Your task to perform on an android device: turn off picture-in-picture Image 0: 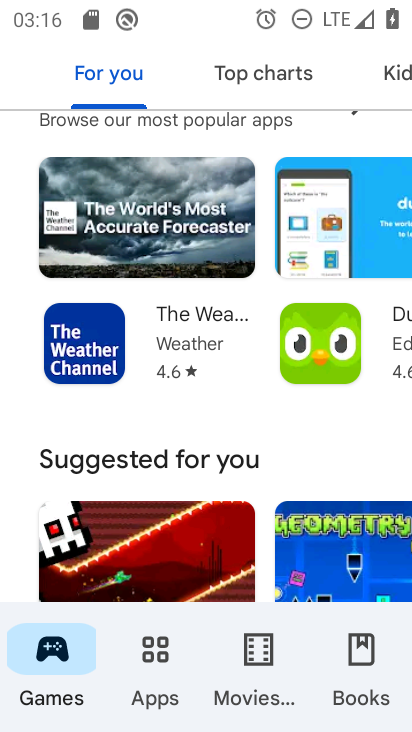
Step 0: press home button
Your task to perform on an android device: turn off picture-in-picture Image 1: 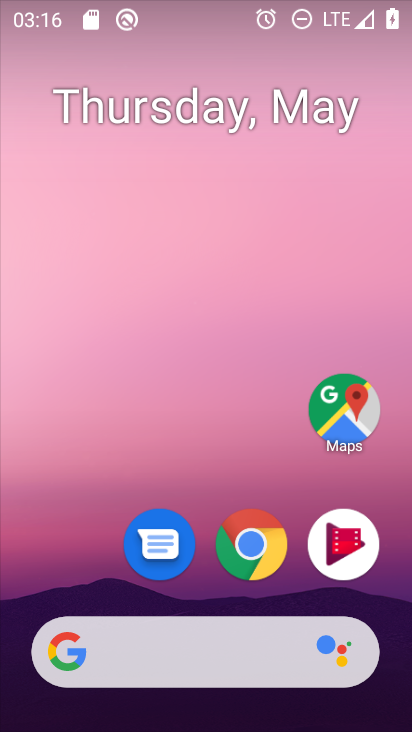
Step 1: drag from (66, 585) to (79, 179)
Your task to perform on an android device: turn off picture-in-picture Image 2: 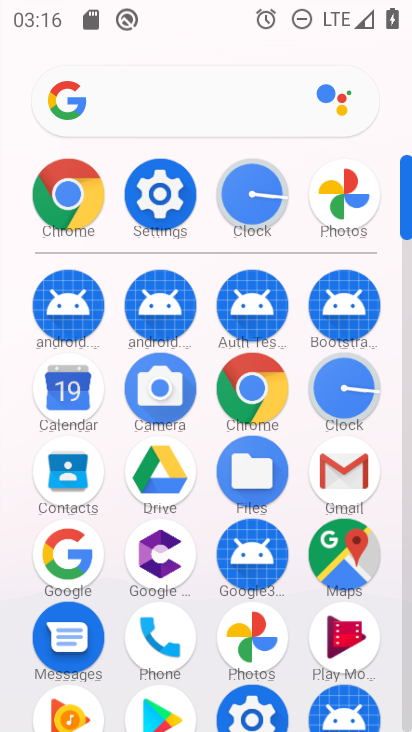
Step 2: drag from (111, 584) to (116, 371)
Your task to perform on an android device: turn off picture-in-picture Image 3: 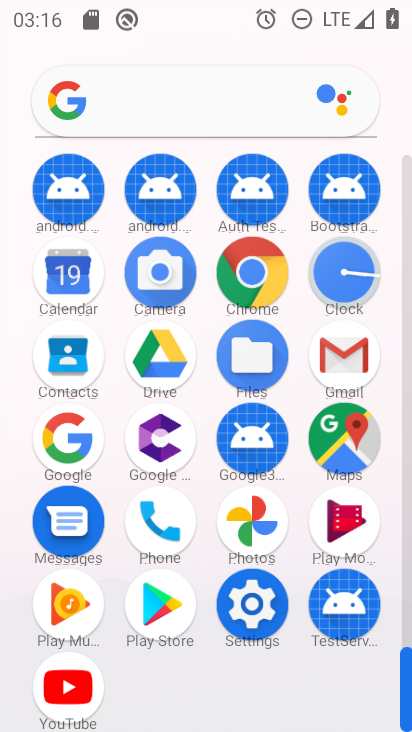
Step 3: click (255, 624)
Your task to perform on an android device: turn off picture-in-picture Image 4: 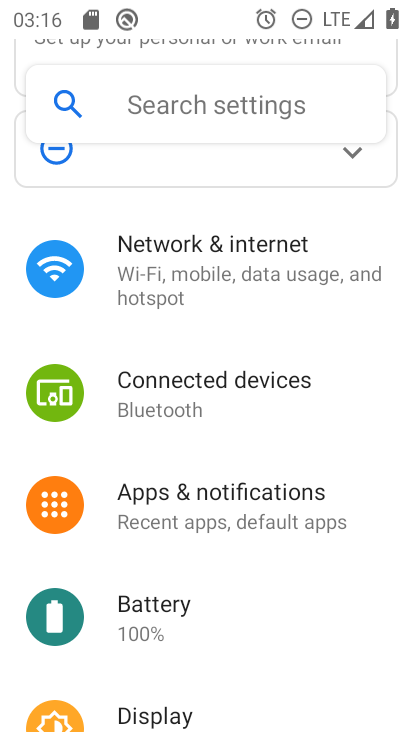
Step 4: drag from (258, 634) to (291, 510)
Your task to perform on an android device: turn off picture-in-picture Image 5: 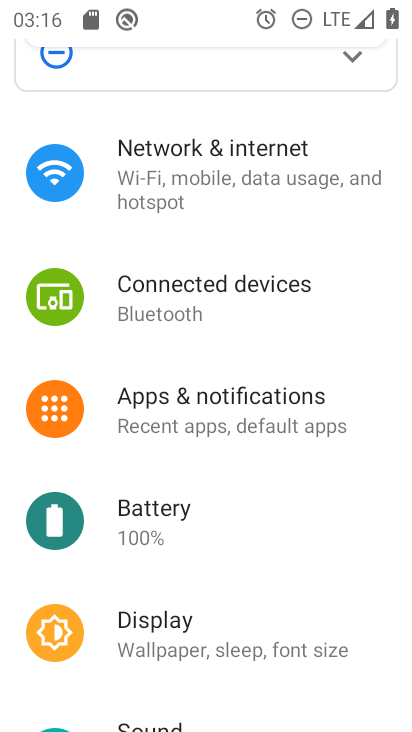
Step 5: drag from (298, 687) to (318, 552)
Your task to perform on an android device: turn off picture-in-picture Image 6: 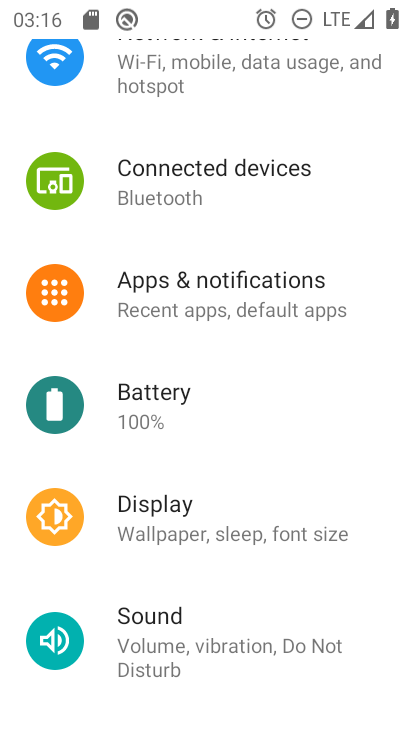
Step 6: drag from (367, 672) to (383, 541)
Your task to perform on an android device: turn off picture-in-picture Image 7: 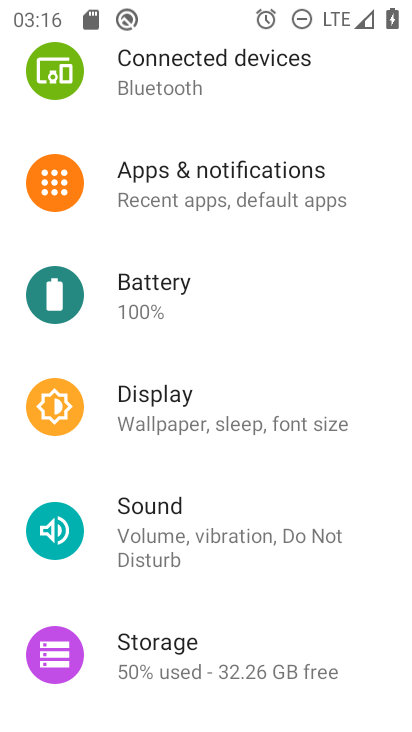
Step 7: drag from (358, 691) to (380, 545)
Your task to perform on an android device: turn off picture-in-picture Image 8: 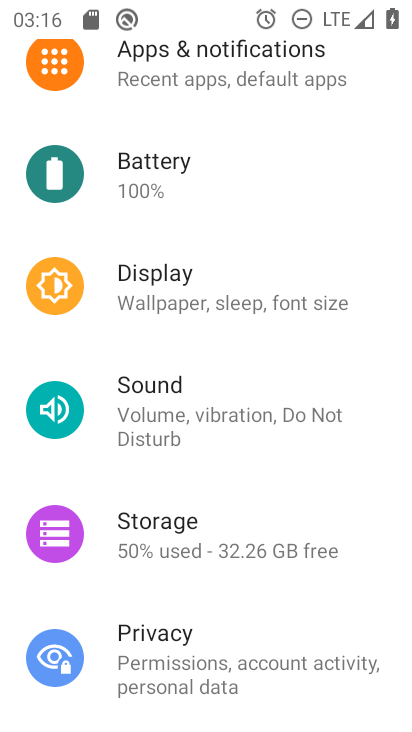
Step 8: drag from (367, 678) to (372, 519)
Your task to perform on an android device: turn off picture-in-picture Image 9: 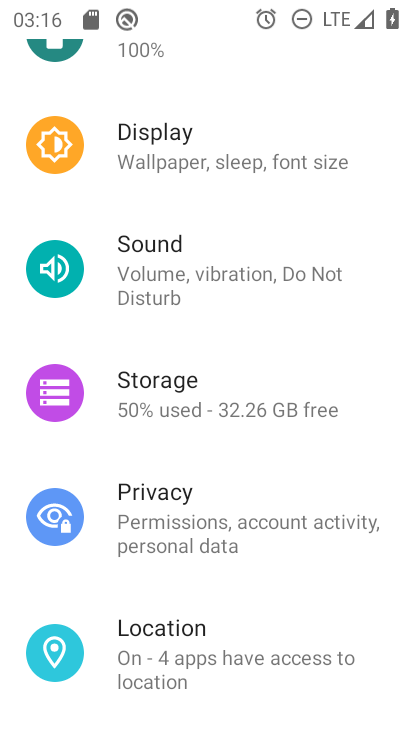
Step 9: drag from (360, 674) to (370, 538)
Your task to perform on an android device: turn off picture-in-picture Image 10: 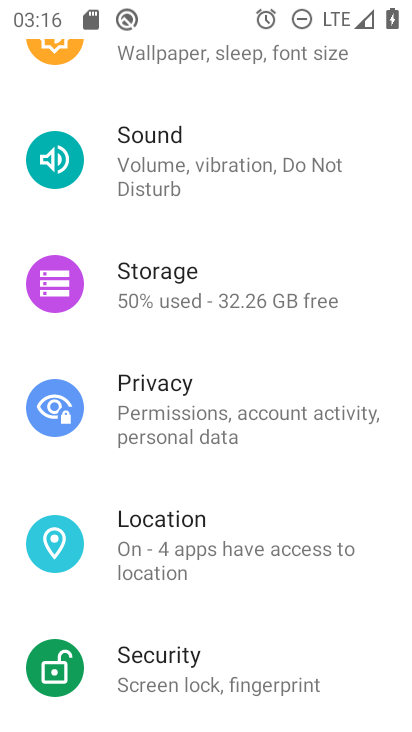
Step 10: drag from (341, 670) to (353, 533)
Your task to perform on an android device: turn off picture-in-picture Image 11: 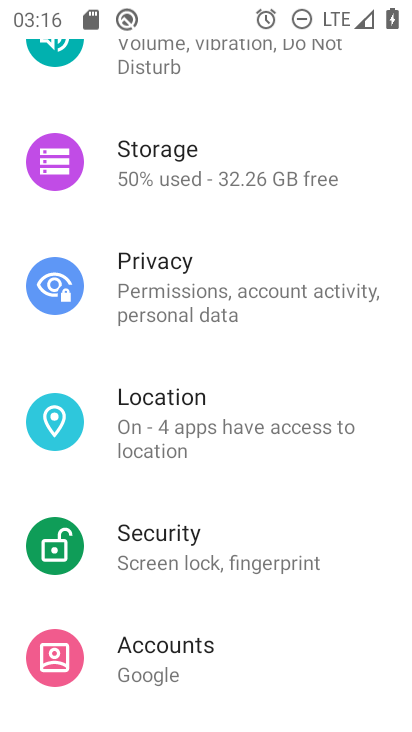
Step 11: drag from (361, 672) to (367, 545)
Your task to perform on an android device: turn off picture-in-picture Image 12: 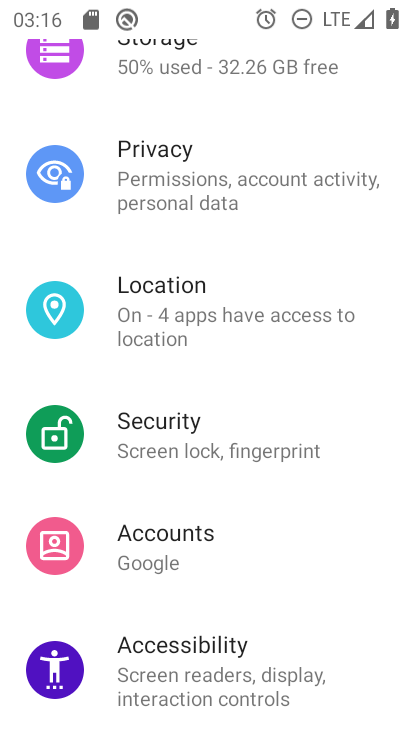
Step 12: drag from (349, 693) to (354, 527)
Your task to perform on an android device: turn off picture-in-picture Image 13: 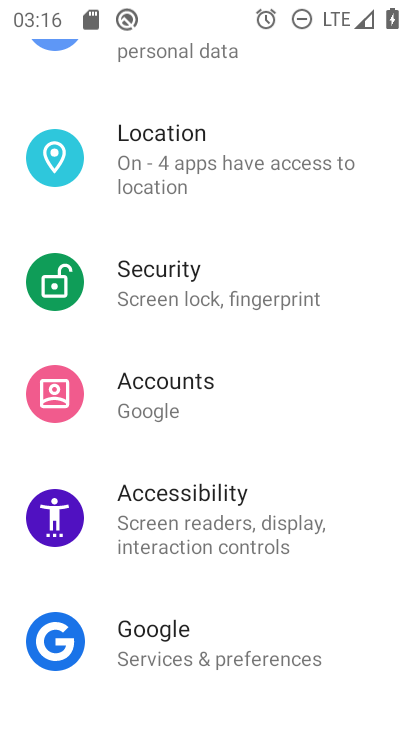
Step 13: drag from (360, 668) to (352, 527)
Your task to perform on an android device: turn off picture-in-picture Image 14: 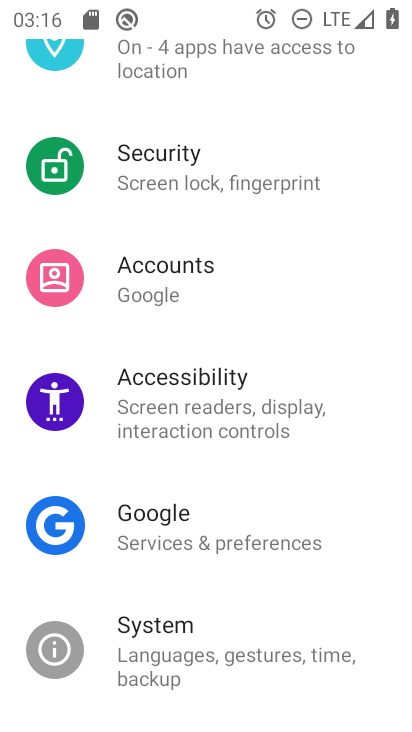
Step 14: drag from (352, 676) to (351, 529)
Your task to perform on an android device: turn off picture-in-picture Image 15: 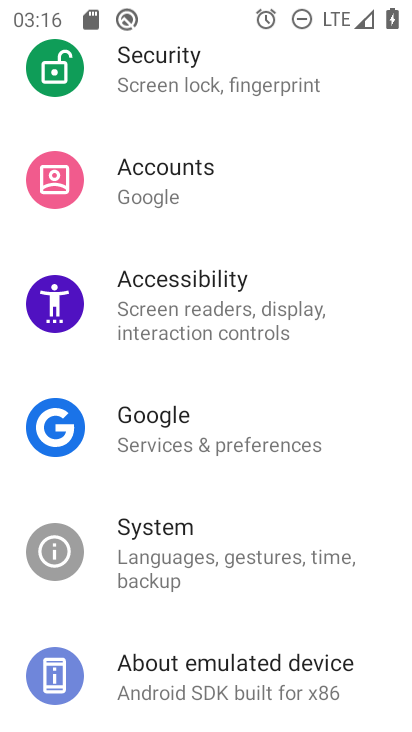
Step 15: drag from (359, 688) to (366, 500)
Your task to perform on an android device: turn off picture-in-picture Image 16: 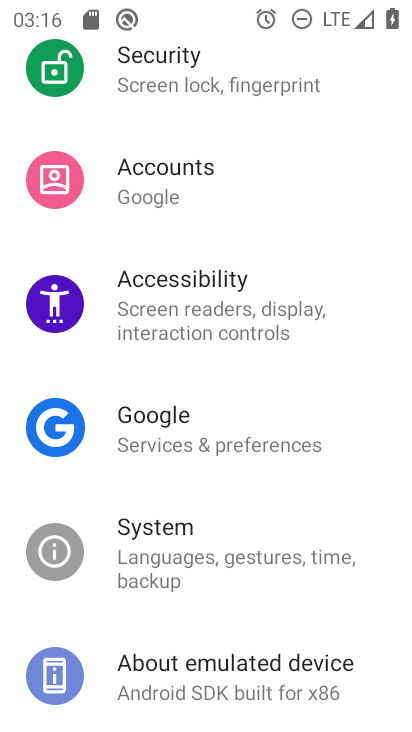
Step 16: drag from (370, 233) to (367, 371)
Your task to perform on an android device: turn off picture-in-picture Image 17: 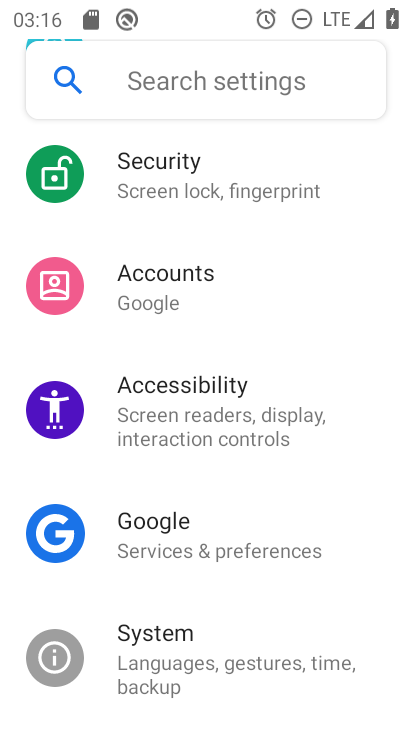
Step 17: drag from (370, 181) to (369, 326)
Your task to perform on an android device: turn off picture-in-picture Image 18: 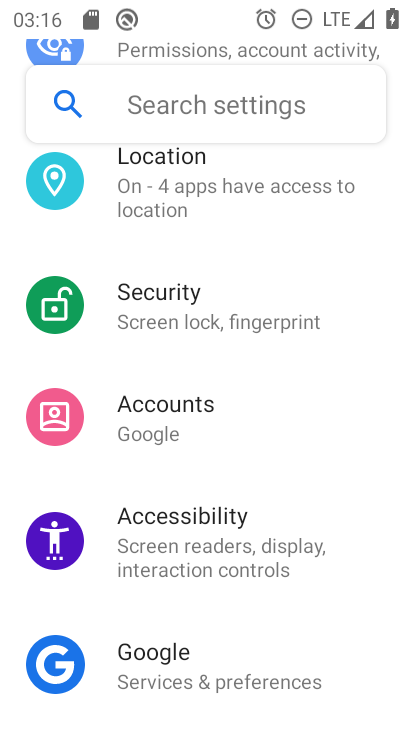
Step 18: drag from (379, 165) to (356, 328)
Your task to perform on an android device: turn off picture-in-picture Image 19: 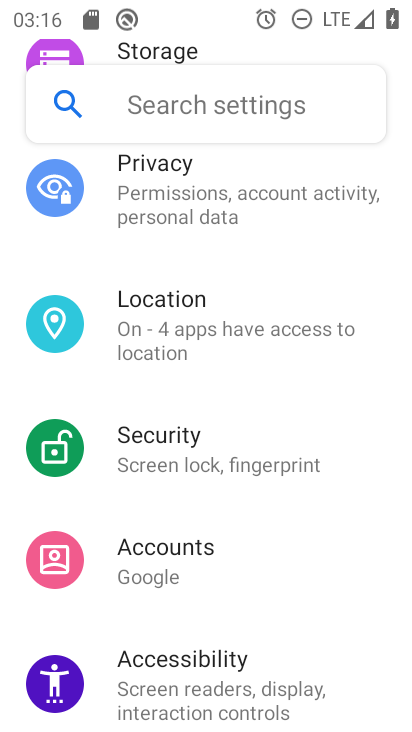
Step 19: drag from (355, 243) to (351, 385)
Your task to perform on an android device: turn off picture-in-picture Image 20: 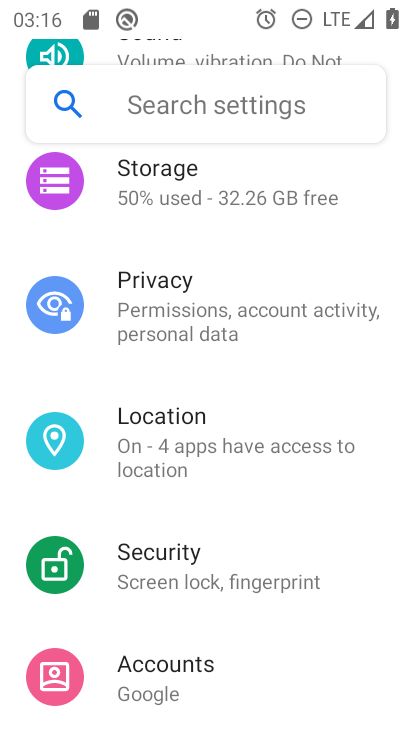
Step 20: drag from (343, 257) to (338, 396)
Your task to perform on an android device: turn off picture-in-picture Image 21: 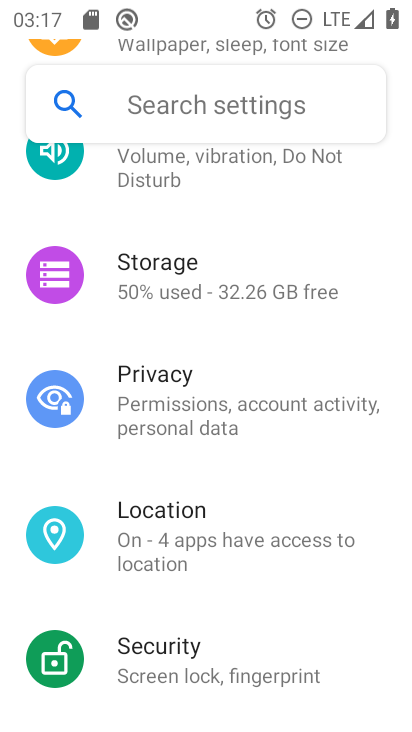
Step 21: drag from (353, 256) to (346, 420)
Your task to perform on an android device: turn off picture-in-picture Image 22: 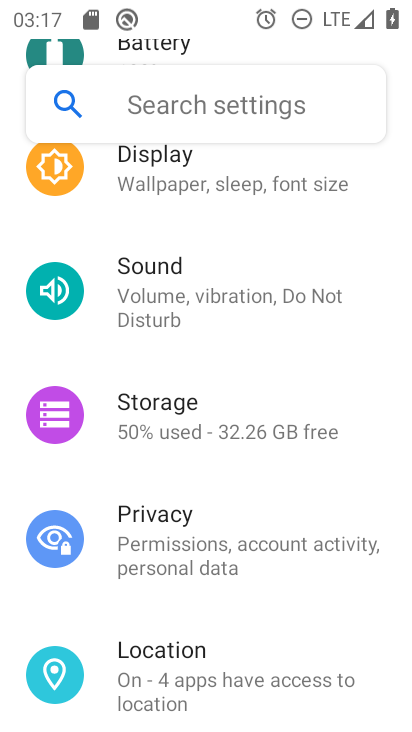
Step 22: drag from (359, 263) to (350, 421)
Your task to perform on an android device: turn off picture-in-picture Image 23: 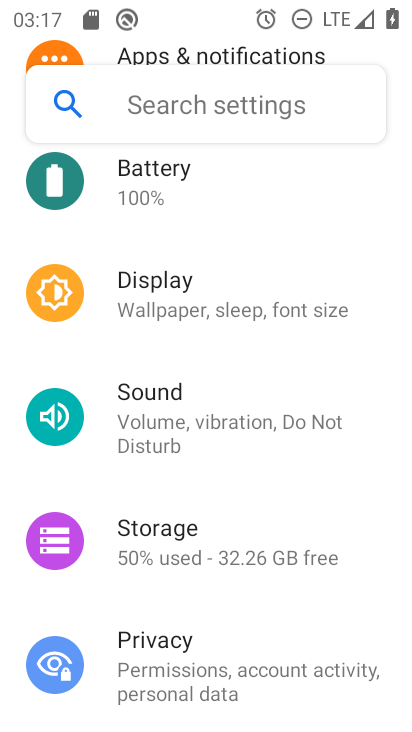
Step 23: drag from (355, 236) to (357, 404)
Your task to perform on an android device: turn off picture-in-picture Image 24: 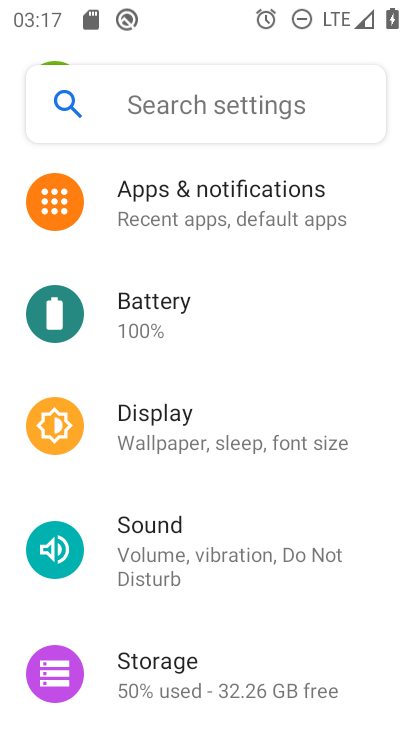
Step 24: click (279, 213)
Your task to perform on an android device: turn off picture-in-picture Image 25: 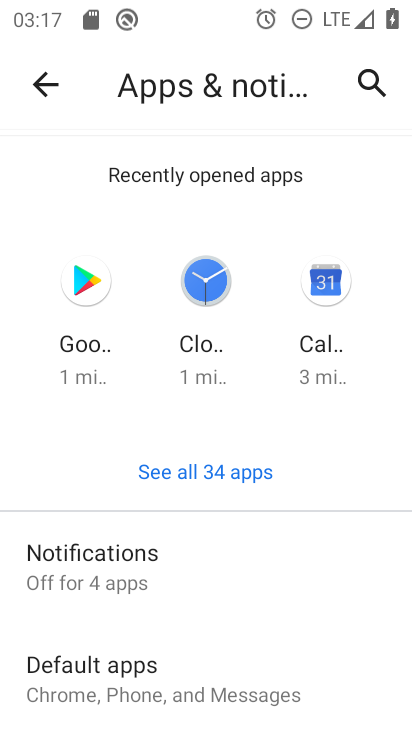
Step 25: drag from (299, 578) to (294, 457)
Your task to perform on an android device: turn off picture-in-picture Image 26: 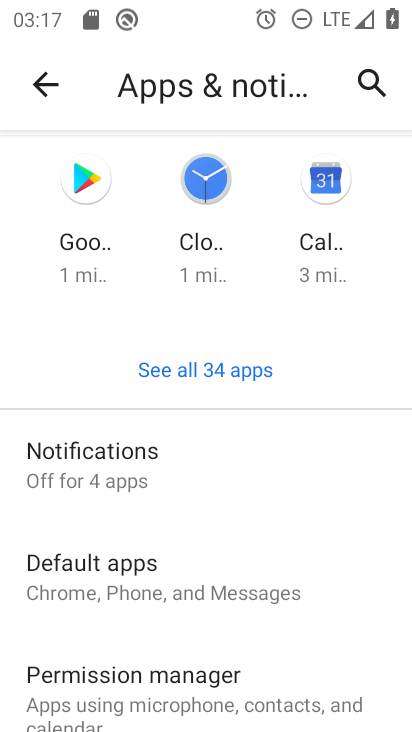
Step 26: drag from (312, 615) to (334, 504)
Your task to perform on an android device: turn off picture-in-picture Image 27: 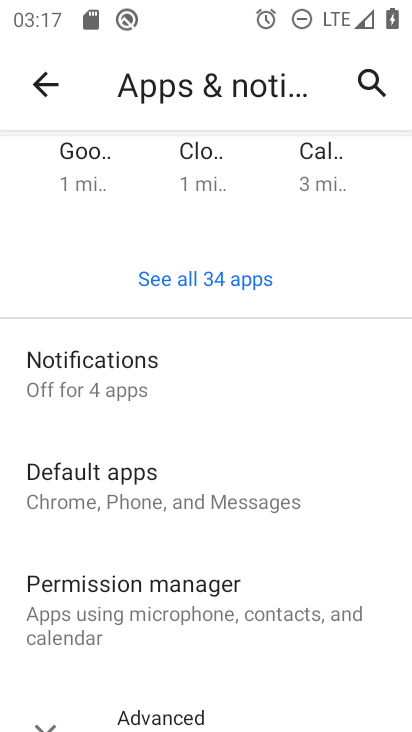
Step 27: drag from (253, 589) to (262, 368)
Your task to perform on an android device: turn off picture-in-picture Image 28: 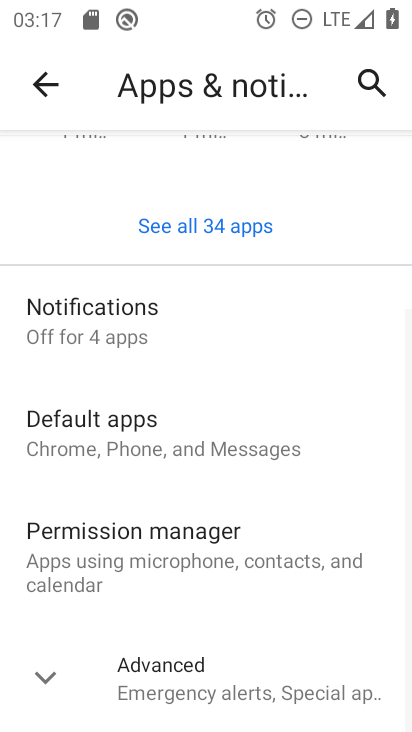
Step 28: click (204, 669)
Your task to perform on an android device: turn off picture-in-picture Image 29: 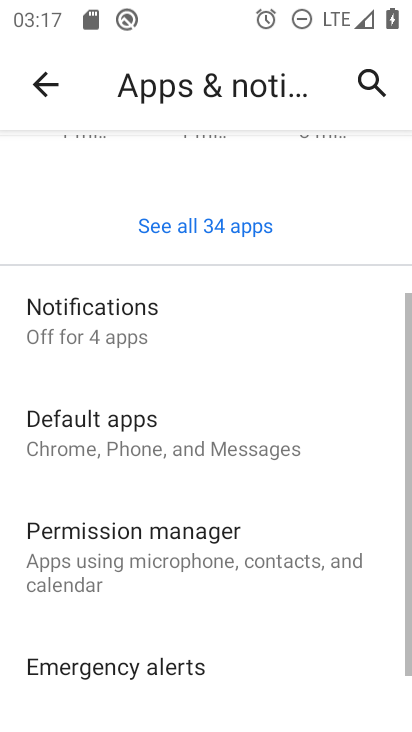
Step 29: drag from (291, 676) to (319, 478)
Your task to perform on an android device: turn off picture-in-picture Image 30: 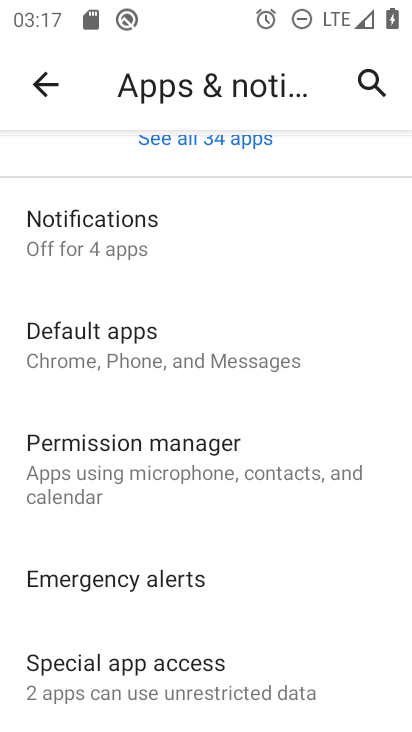
Step 30: click (159, 677)
Your task to perform on an android device: turn off picture-in-picture Image 31: 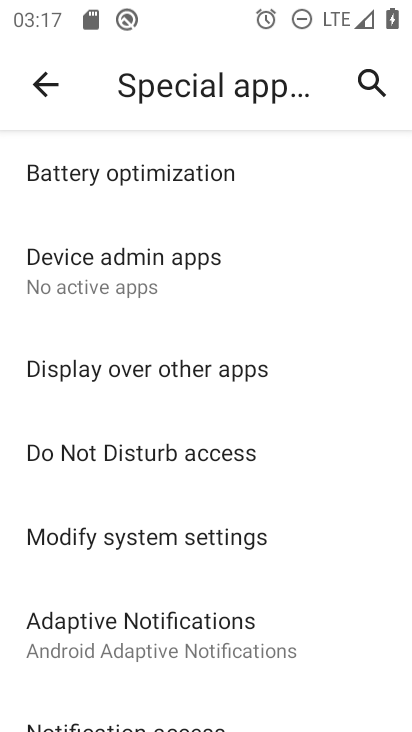
Step 31: drag from (303, 664) to (327, 511)
Your task to perform on an android device: turn off picture-in-picture Image 32: 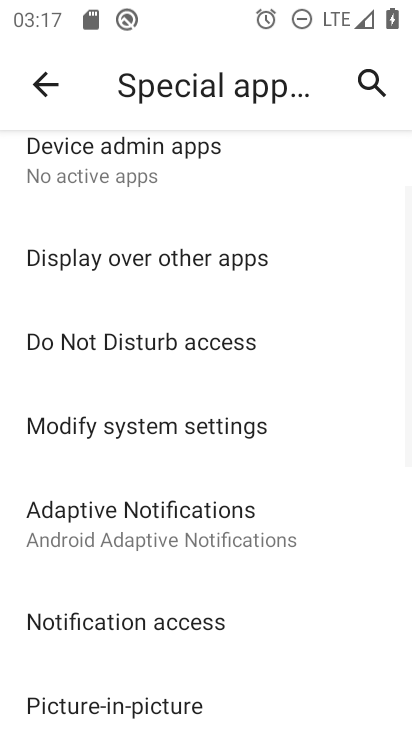
Step 32: drag from (322, 642) to (324, 480)
Your task to perform on an android device: turn off picture-in-picture Image 33: 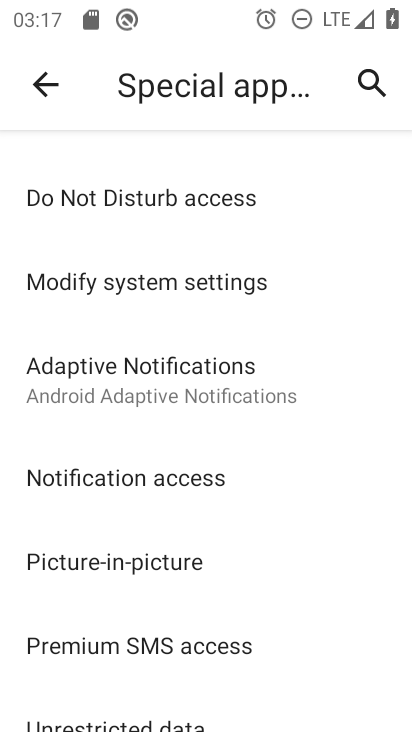
Step 33: click (153, 565)
Your task to perform on an android device: turn off picture-in-picture Image 34: 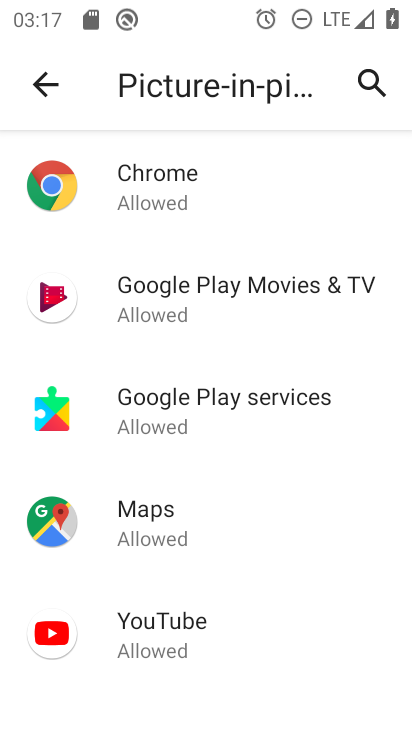
Step 34: click (208, 637)
Your task to perform on an android device: turn off picture-in-picture Image 35: 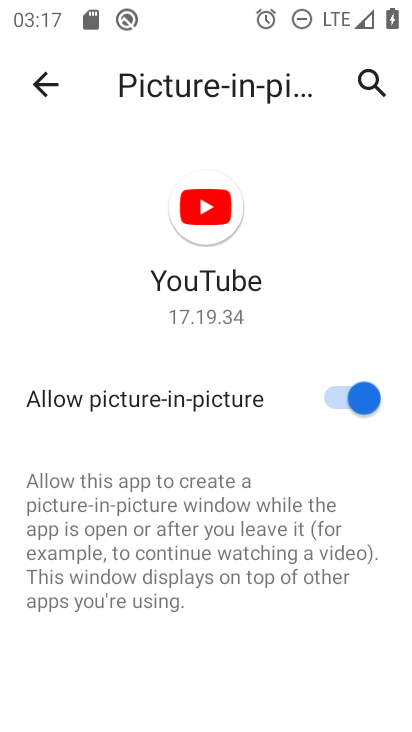
Step 35: click (372, 410)
Your task to perform on an android device: turn off picture-in-picture Image 36: 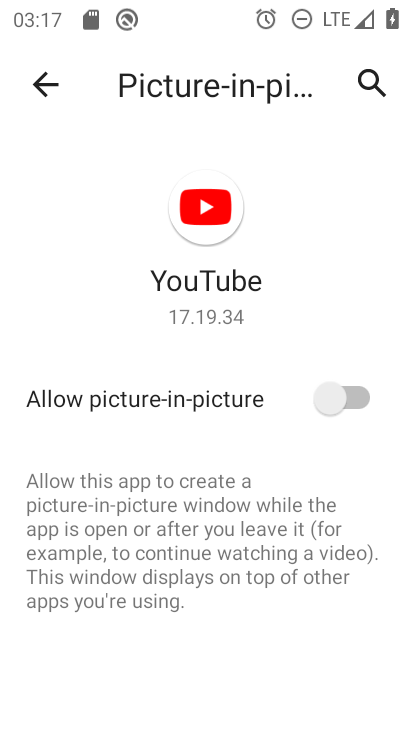
Step 36: task complete